Your task to perform on an android device: Open Google Chrome and click the shortcut for Amazon.com Image 0: 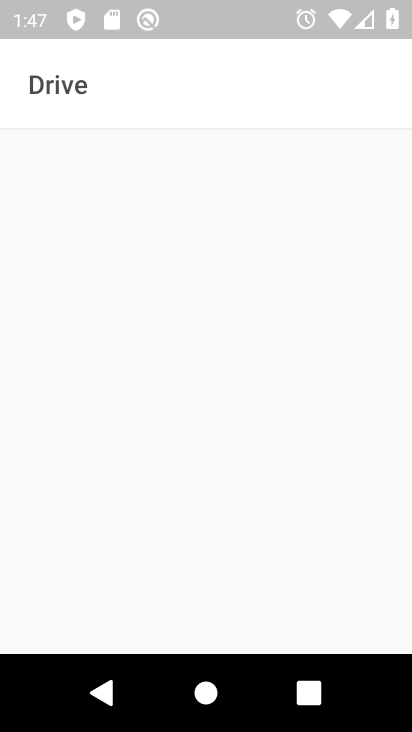
Step 0: press home button
Your task to perform on an android device: Open Google Chrome and click the shortcut for Amazon.com Image 1: 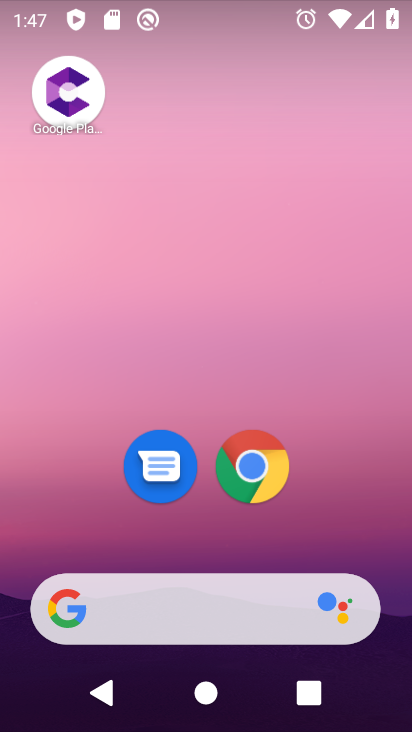
Step 1: drag from (286, 509) to (286, 176)
Your task to perform on an android device: Open Google Chrome and click the shortcut for Amazon.com Image 2: 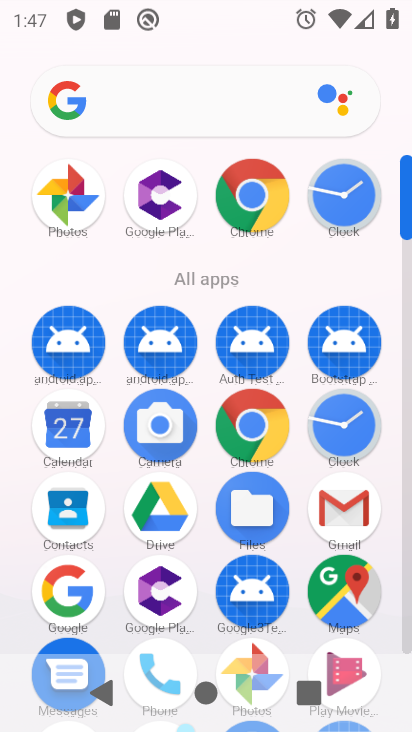
Step 2: click (258, 198)
Your task to perform on an android device: Open Google Chrome and click the shortcut for Amazon.com Image 3: 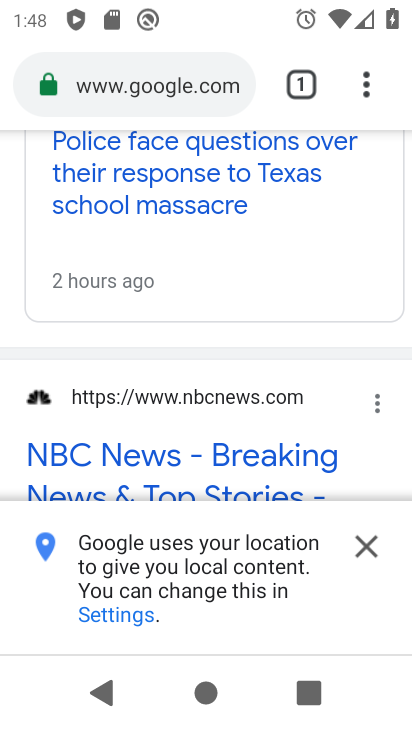
Step 3: drag from (369, 87) to (85, 166)
Your task to perform on an android device: Open Google Chrome and click the shortcut for Amazon.com Image 4: 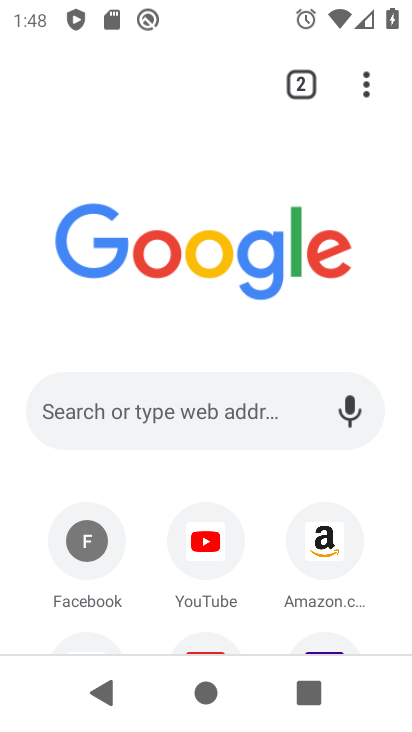
Step 4: click (334, 543)
Your task to perform on an android device: Open Google Chrome and click the shortcut for Amazon.com Image 5: 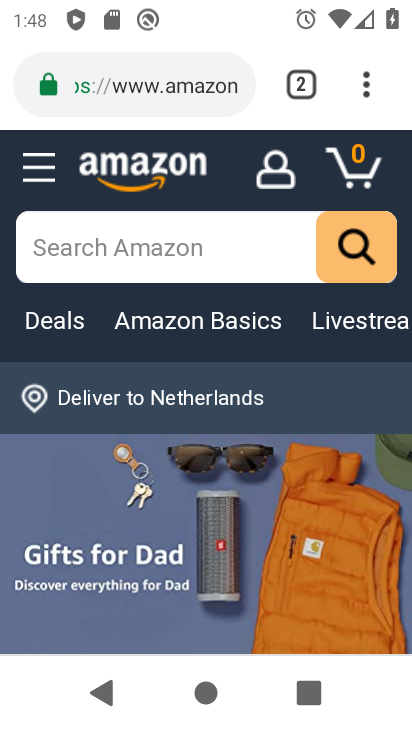
Step 5: task complete